Your task to perform on an android device: toggle location history Image 0: 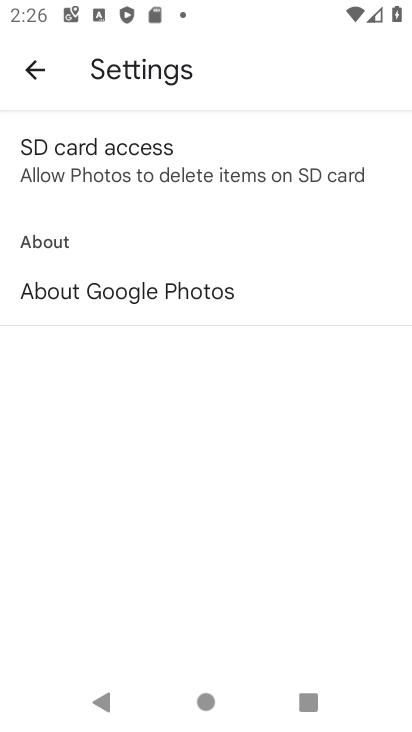
Step 0: press home button
Your task to perform on an android device: toggle location history Image 1: 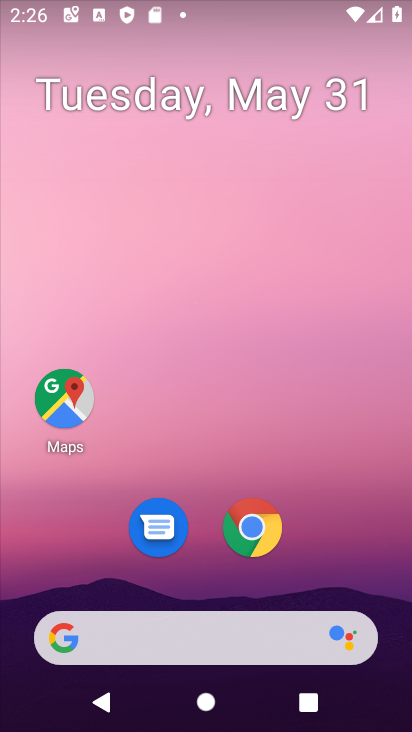
Step 1: drag from (400, 620) to (352, 150)
Your task to perform on an android device: toggle location history Image 2: 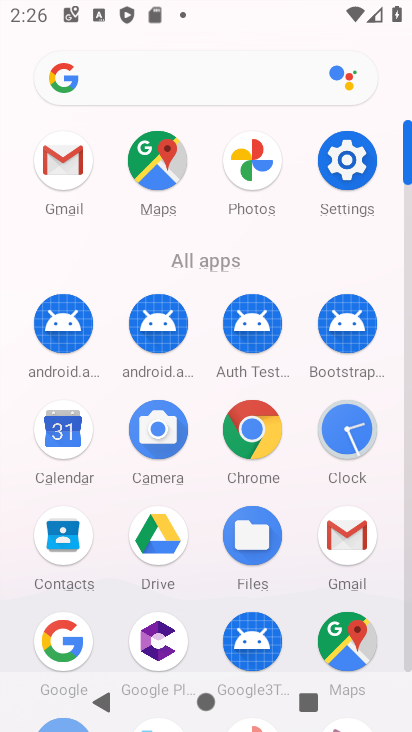
Step 2: click (407, 520)
Your task to perform on an android device: toggle location history Image 3: 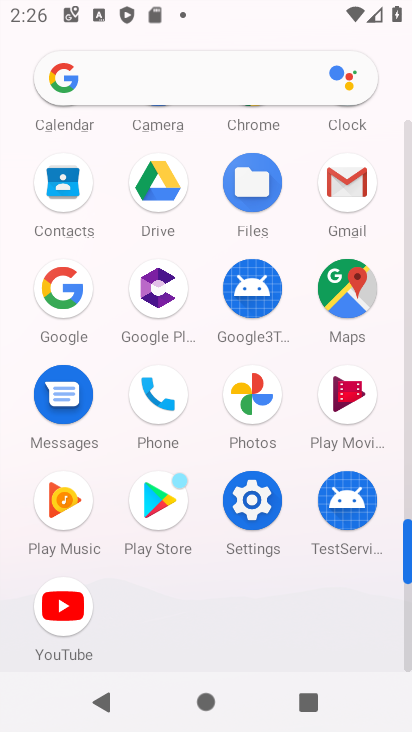
Step 3: click (253, 502)
Your task to perform on an android device: toggle location history Image 4: 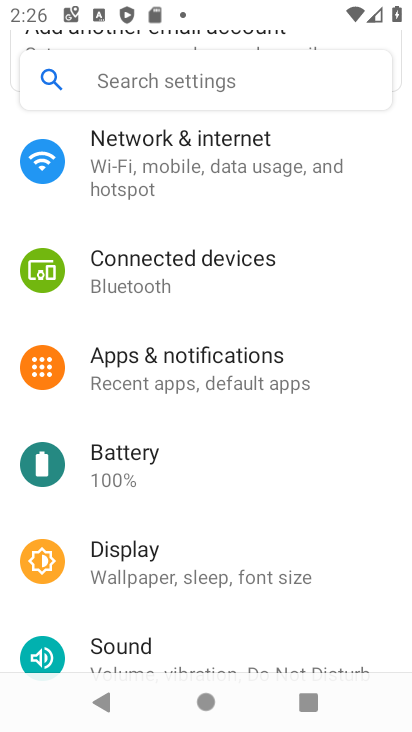
Step 4: drag from (325, 599) to (317, 281)
Your task to perform on an android device: toggle location history Image 5: 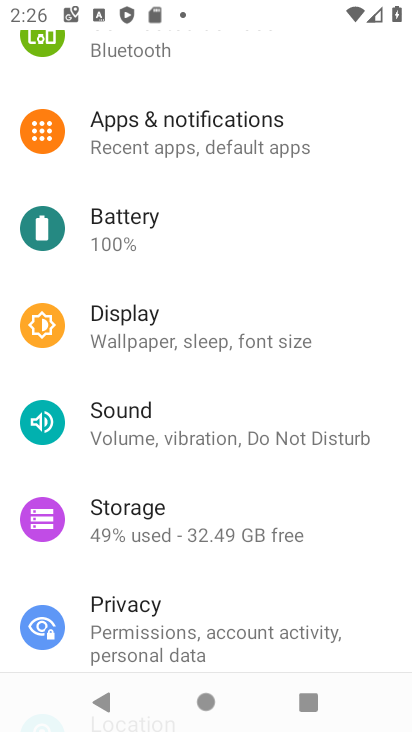
Step 5: drag from (332, 601) to (369, 265)
Your task to perform on an android device: toggle location history Image 6: 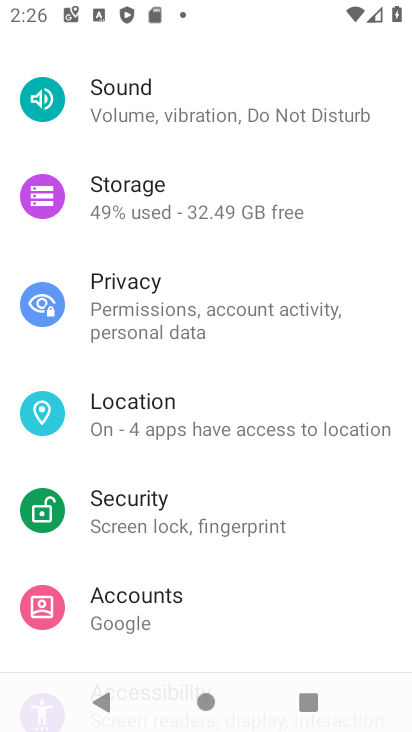
Step 6: click (142, 403)
Your task to perform on an android device: toggle location history Image 7: 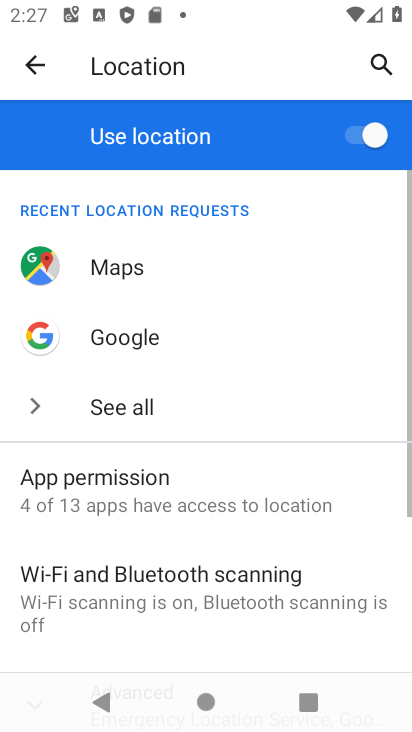
Step 7: drag from (219, 538) to (201, 213)
Your task to perform on an android device: toggle location history Image 8: 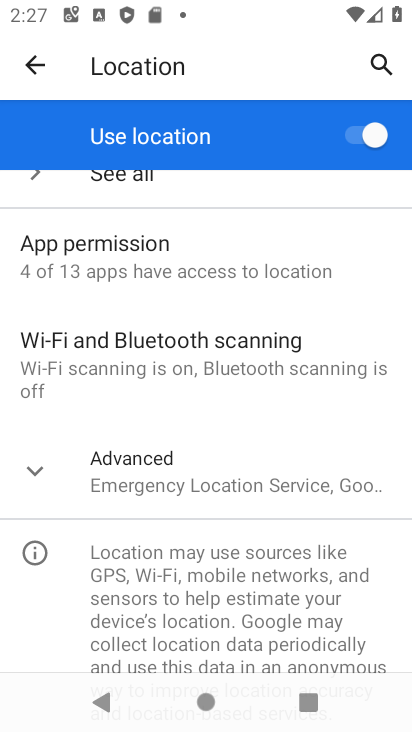
Step 8: click (34, 467)
Your task to perform on an android device: toggle location history Image 9: 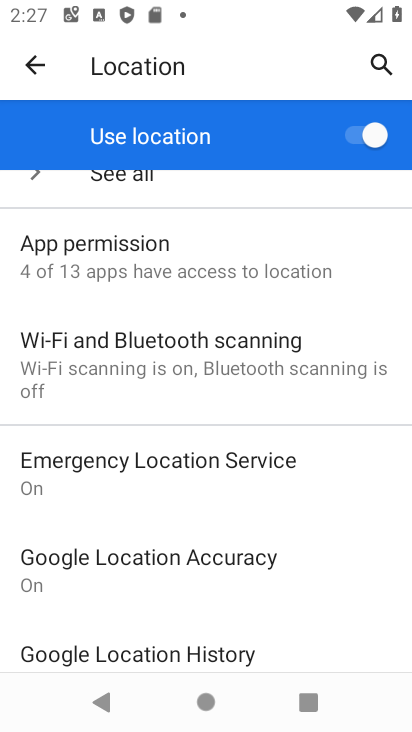
Step 9: click (114, 643)
Your task to perform on an android device: toggle location history Image 10: 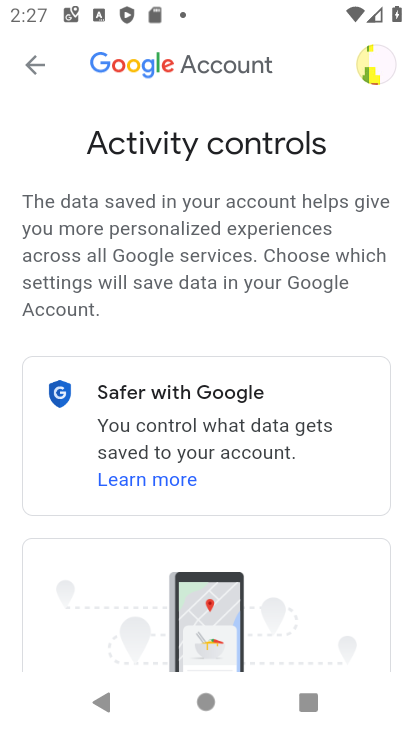
Step 10: drag from (357, 563) to (298, 119)
Your task to perform on an android device: toggle location history Image 11: 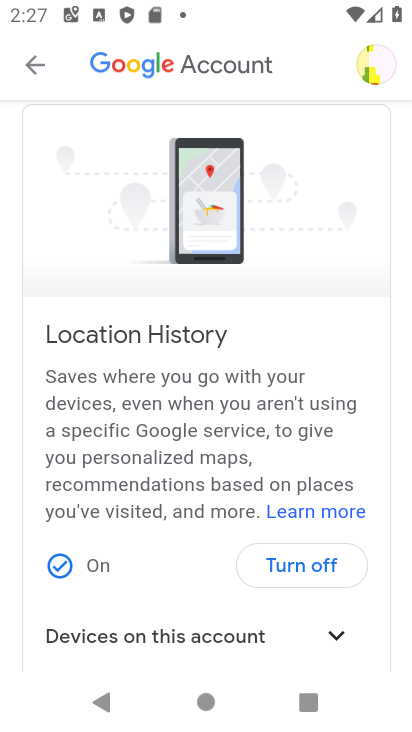
Step 11: click (308, 567)
Your task to perform on an android device: toggle location history Image 12: 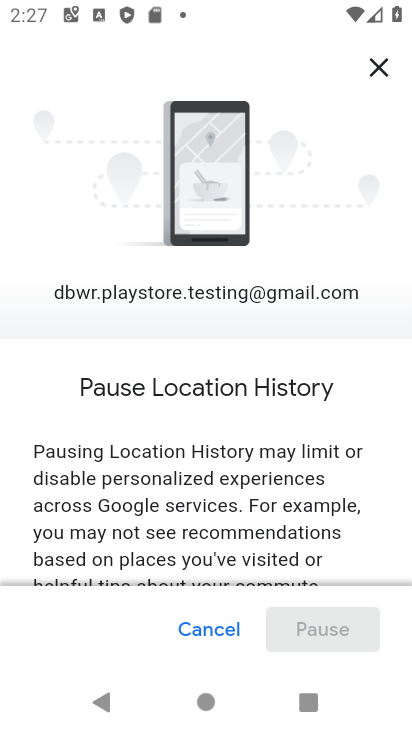
Step 12: drag from (303, 562) to (296, 121)
Your task to perform on an android device: toggle location history Image 13: 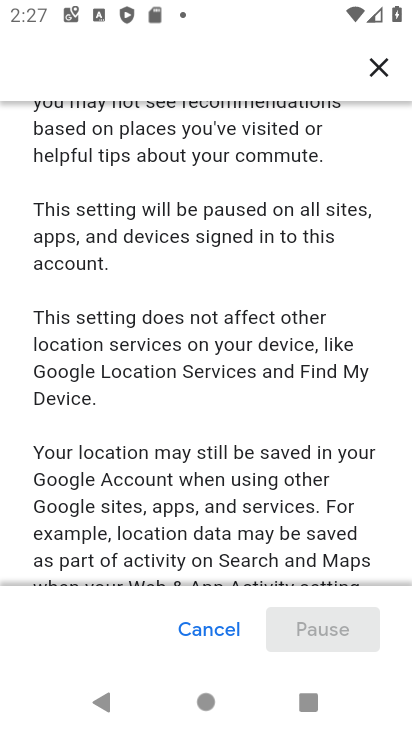
Step 13: drag from (302, 530) to (297, 128)
Your task to perform on an android device: toggle location history Image 14: 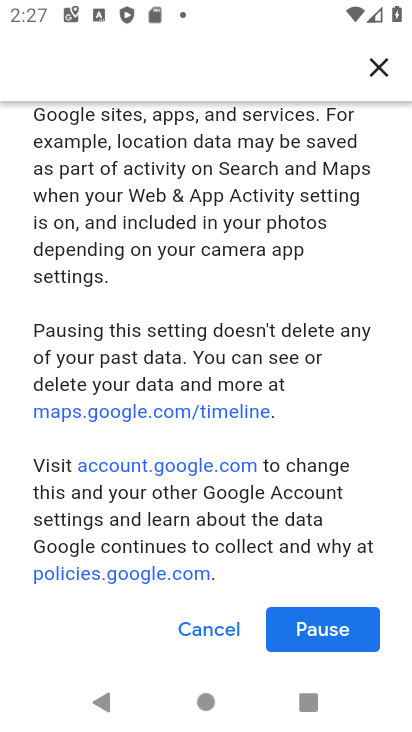
Step 14: click (318, 625)
Your task to perform on an android device: toggle location history Image 15: 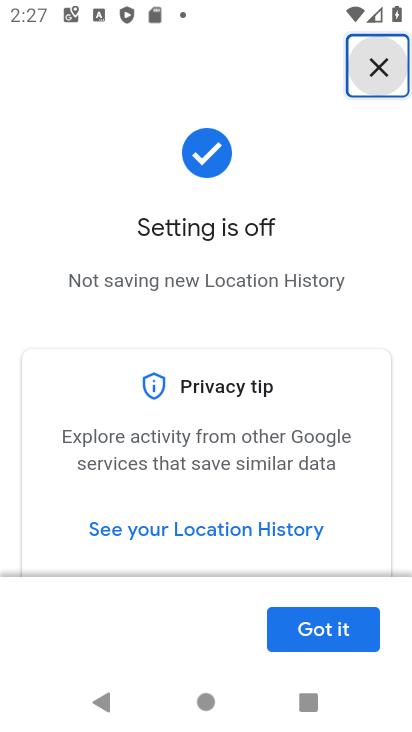
Step 15: click (318, 627)
Your task to perform on an android device: toggle location history Image 16: 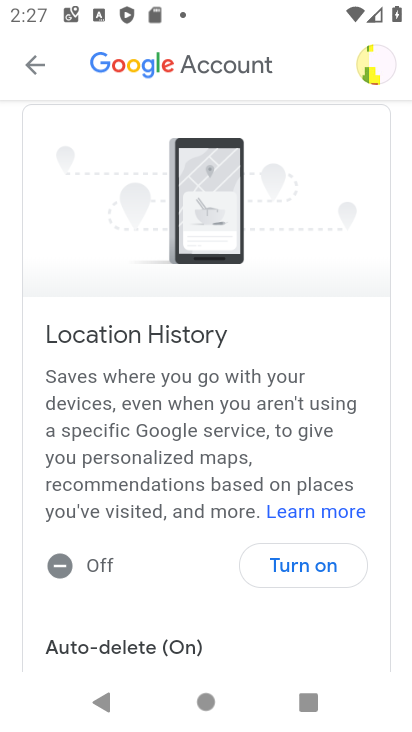
Step 16: task complete